Your task to perform on an android device: Go to wifi settings Image 0: 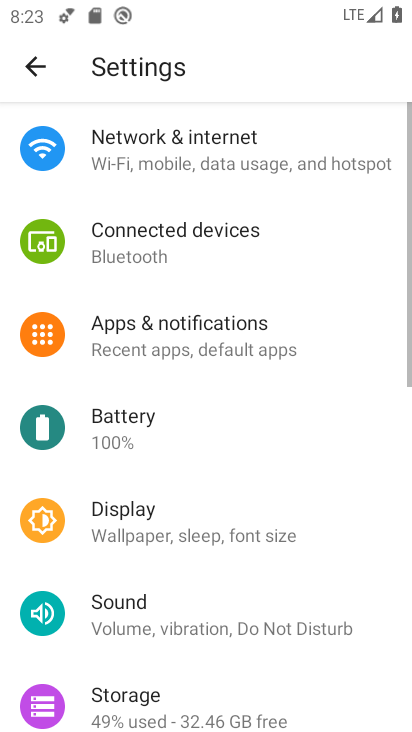
Step 0: click (274, 156)
Your task to perform on an android device: Go to wifi settings Image 1: 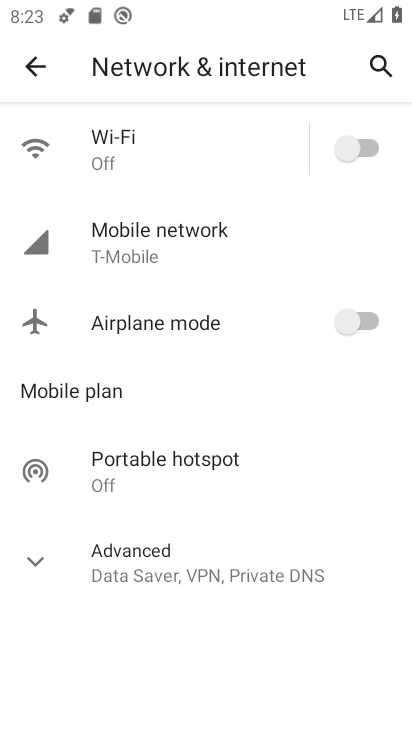
Step 1: click (150, 133)
Your task to perform on an android device: Go to wifi settings Image 2: 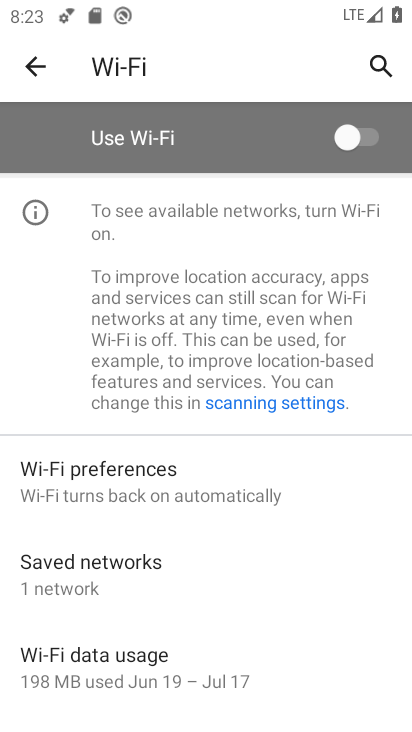
Step 2: task complete